Your task to perform on an android device: check out phone information Image 0: 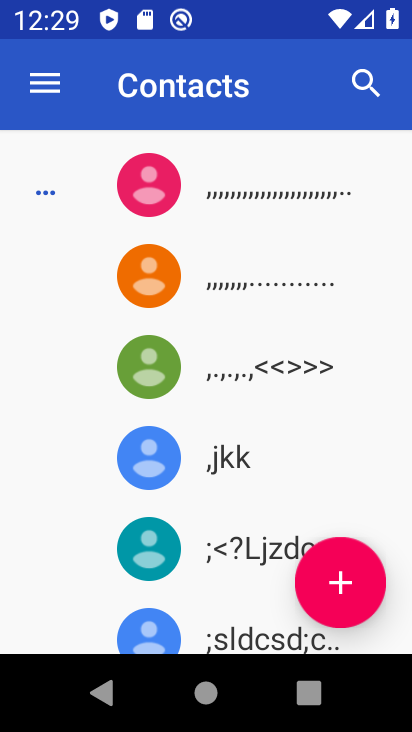
Step 0: press home button
Your task to perform on an android device: check out phone information Image 1: 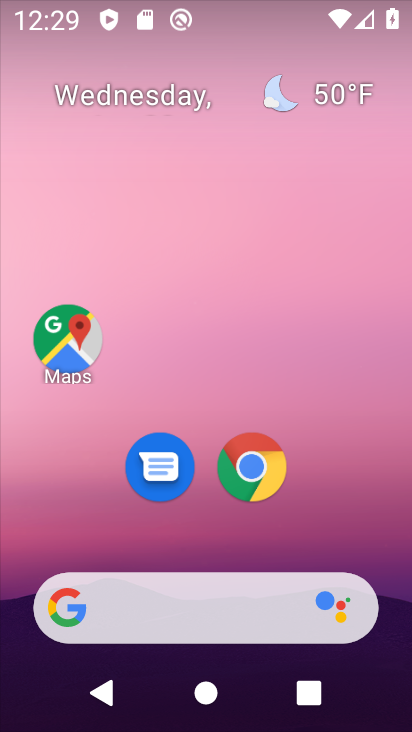
Step 1: drag from (210, 342) to (236, 34)
Your task to perform on an android device: check out phone information Image 2: 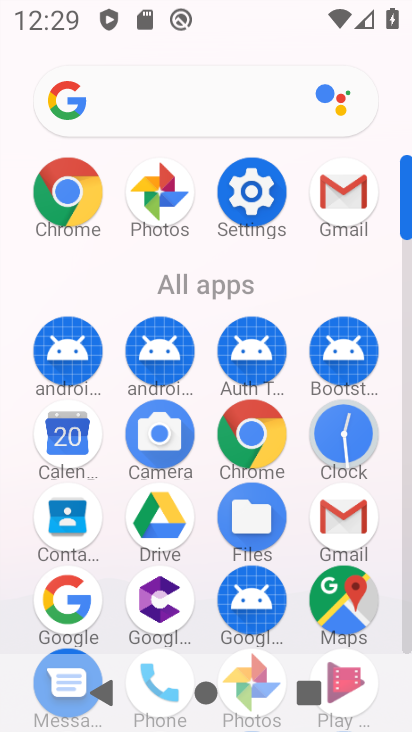
Step 2: click (245, 178)
Your task to perform on an android device: check out phone information Image 3: 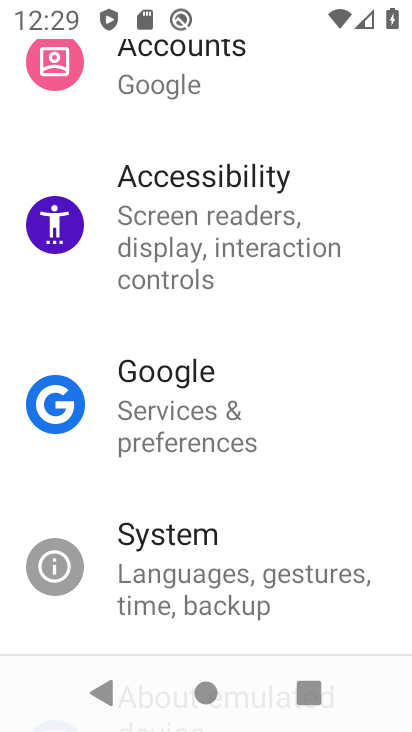
Step 3: drag from (205, 546) to (281, 13)
Your task to perform on an android device: check out phone information Image 4: 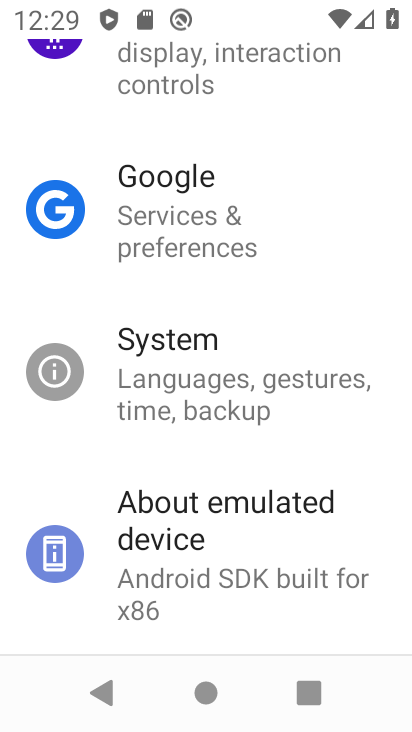
Step 4: click (243, 559)
Your task to perform on an android device: check out phone information Image 5: 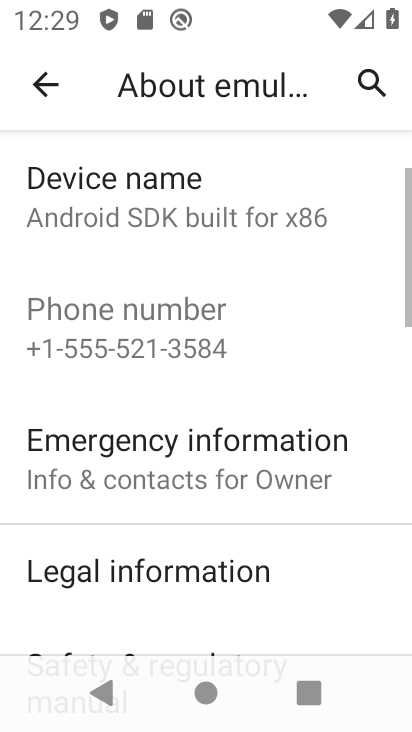
Step 5: task complete